Your task to perform on an android device: Go to sound settings Image 0: 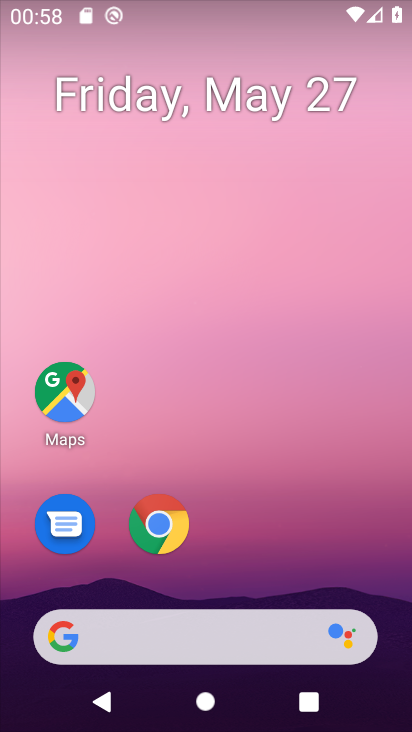
Step 0: drag from (237, 539) to (234, 42)
Your task to perform on an android device: Go to sound settings Image 1: 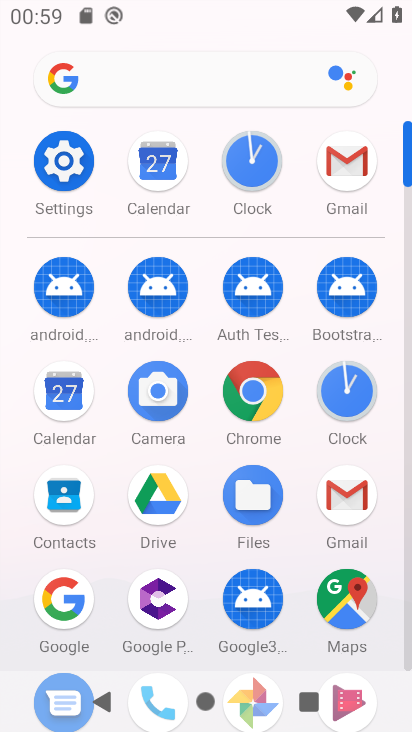
Step 1: click (77, 158)
Your task to perform on an android device: Go to sound settings Image 2: 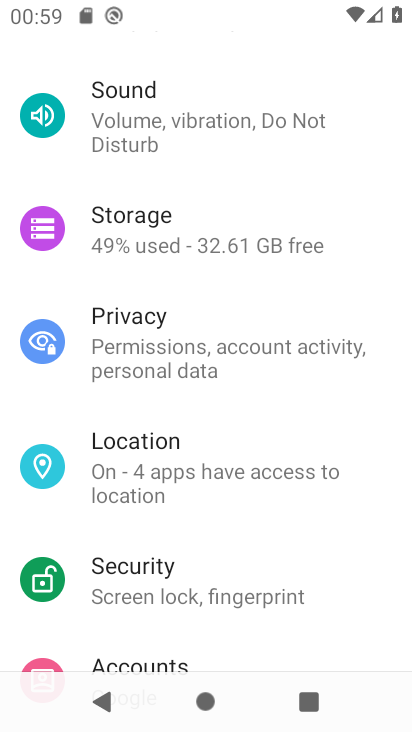
Step 2: click (222, 130)
Your task to perform on an android device: Go to sound settings Image 3: 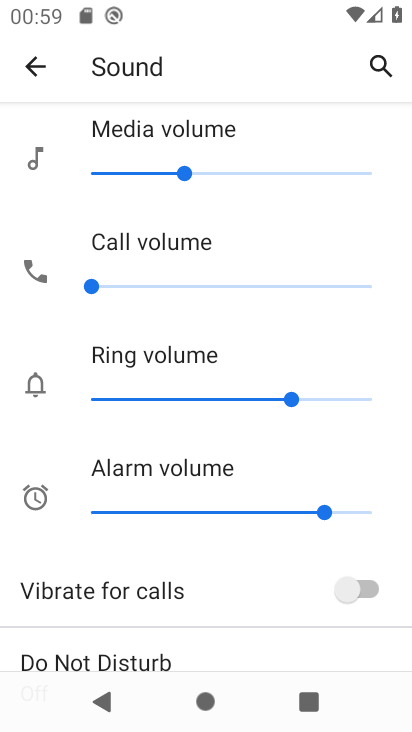
Step 3: task complete